Your task to perform on an android device: make emails show in primary in the gmail app Image 0: 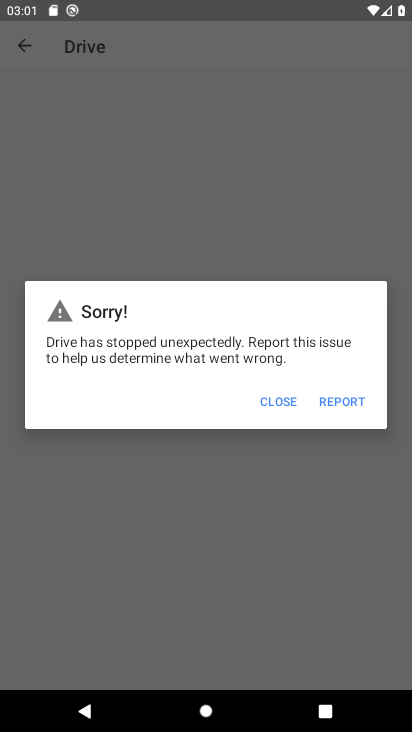
Step 0: press home button
Your task to perform on an android device: make emails show in primary in the gmail app Image 1: 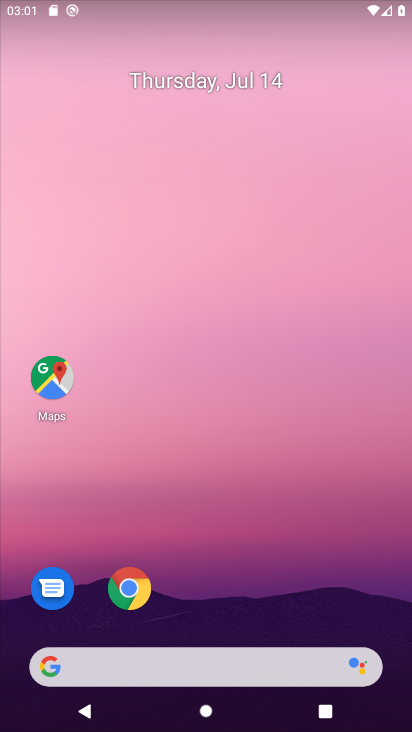
Step 1: drag from (306, 604) to (204, 134)
Your task to perform on an android device: make emails show in primary in the gmail app Image 2: 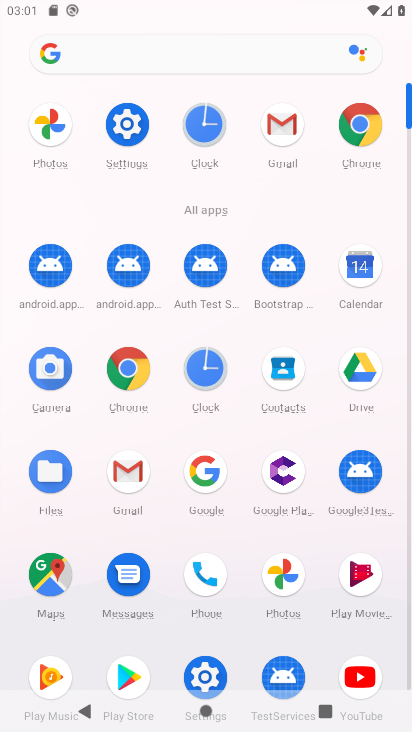
Step 2: click (273, 127)
Your task to perform on an android device: make emails show in primary in the gmail app Image 3: 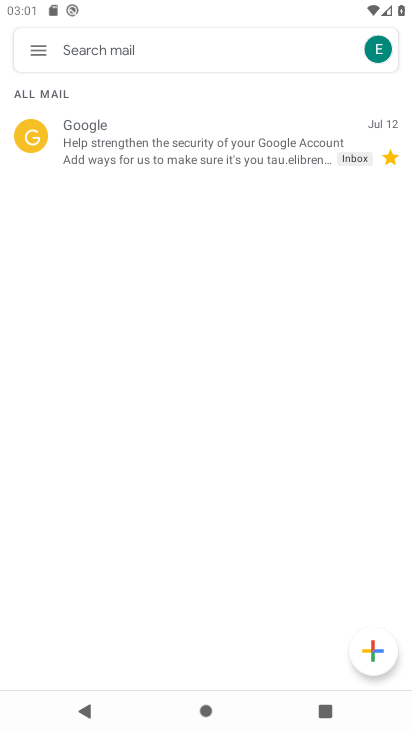
Step 3: click (38, 54)
Your task to perform on an android device: make emails show in primary in the gmail app Image 4: 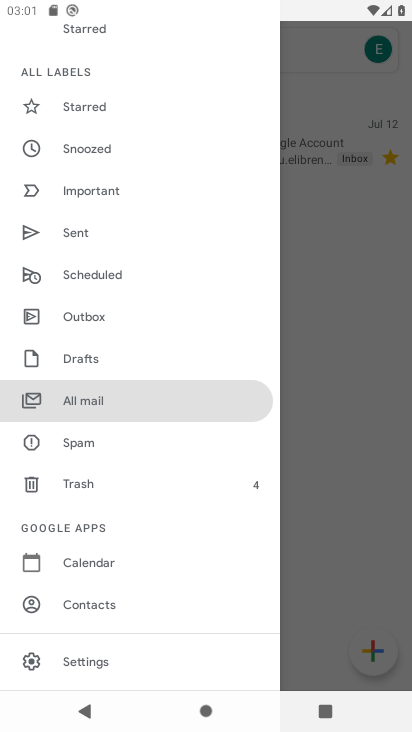
Step 4: click (137, 661)
Your task to perform on an android device: make emails show in primary in the gmail app Image 5: 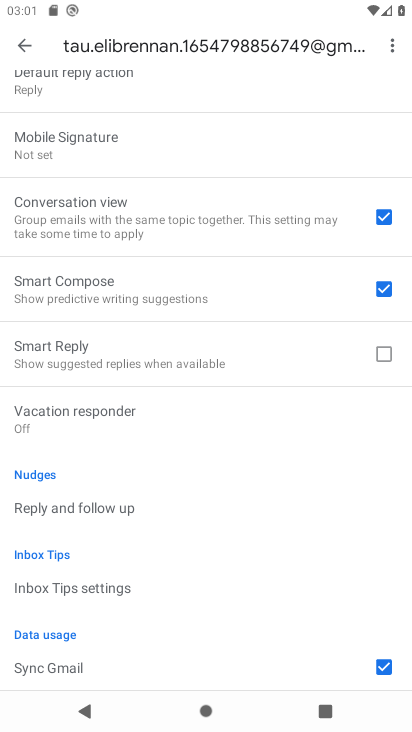
Step 5: drag from (135, 139) to (195, 588)
Your task to perform on an android device: make emails show in primary in the gmail app Image 6: 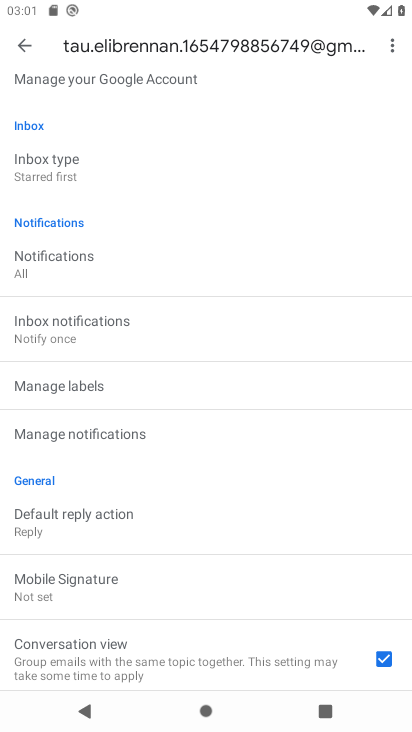
Step 6: drag from (96, 118) to (142, 545)
Your task to perform on an android device: make emails show in primary in the gmail app Image 7: 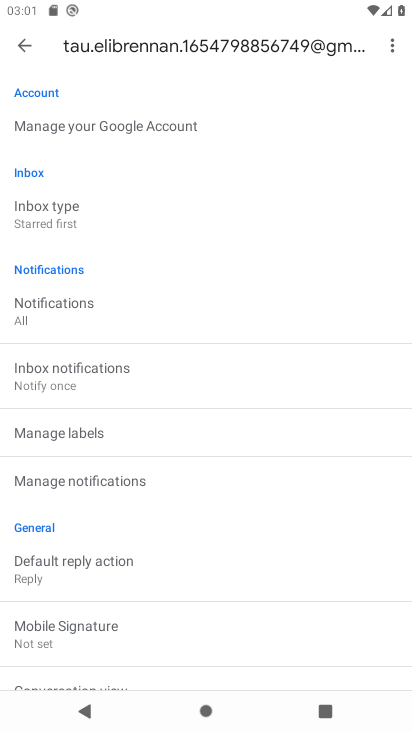
Step 7: click (70, 211)
Your task to perform on an android device: make emails show in primary in the gmail app Image 8: 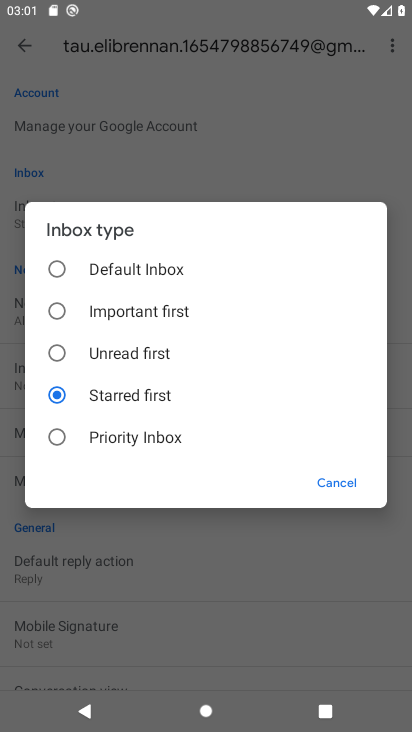
Step 8: click (142, 257)
Your task to perform on an android device: make emails show in primary in the gmail app Image 9: 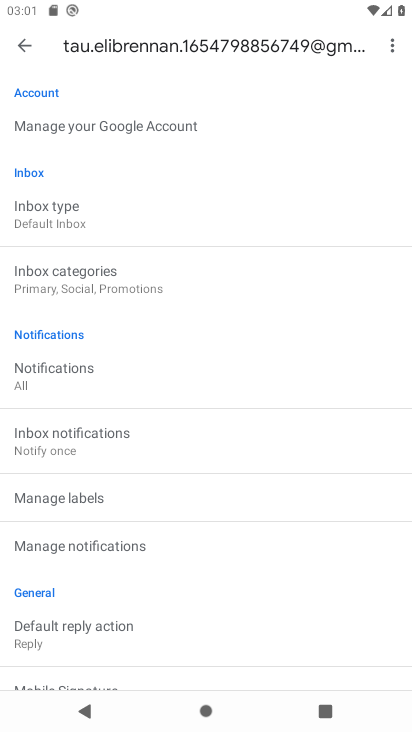
Step 9: task complete